Your task to perform on an android device: Open CNN.com Image 0: 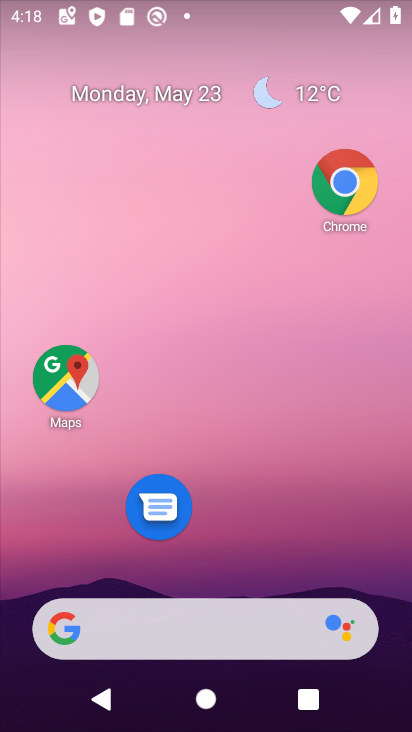
Step 0: click (166, 656)
Your task to perform on an android device: Open CNN.com Image 1: 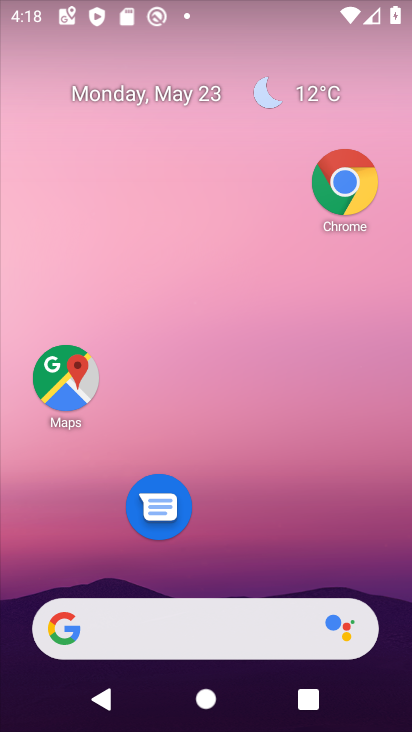
Step 1: click (163, 651)
Your task to perform on an android device: Open CNN.com Image 2: 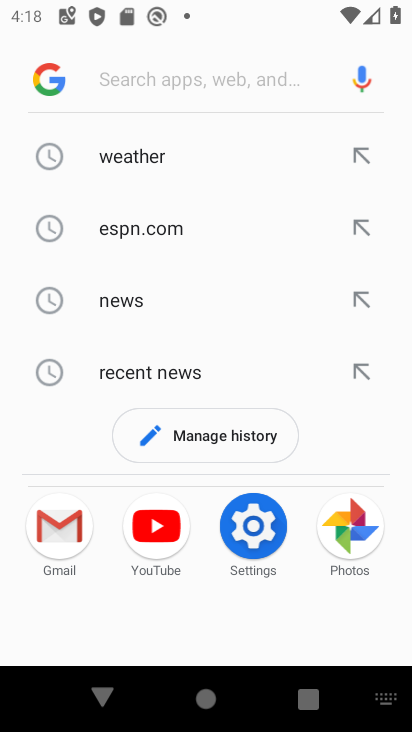
Step 2: type "cnn.com"
Your task to perform on an android device: Open CNN.com Image 3: 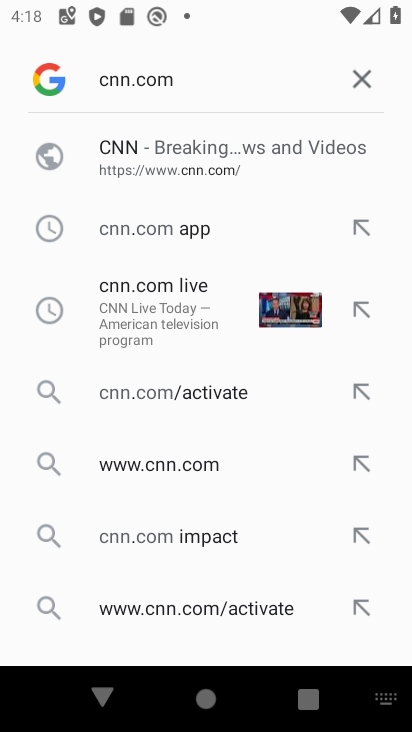
Step 3: click (135, 142)
Your task to perform on an android device: Open CNN.com Image 4: 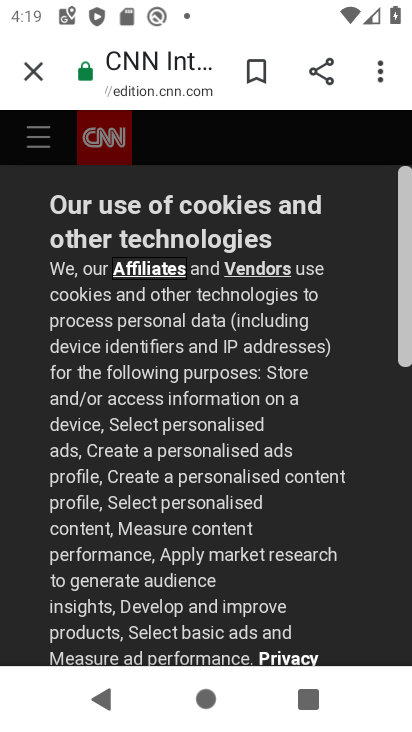
Step 4: task complete